Your task to perform on an android device: What's the weather going to be this weekend? Image 0: 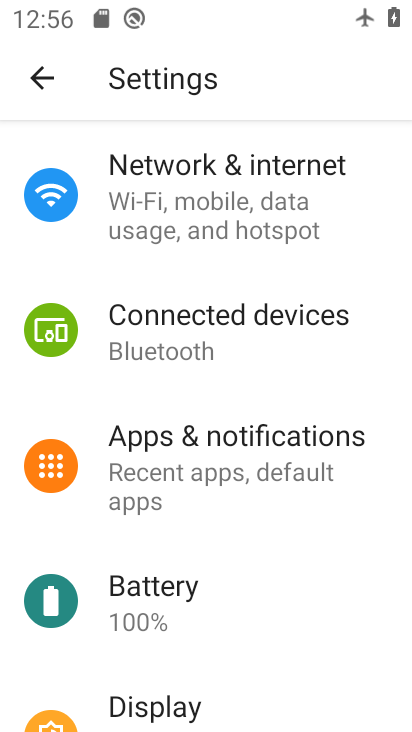
Step 0: press home button
Your task to perform on an android device: What's the weather going to be this weekend? Image 1: 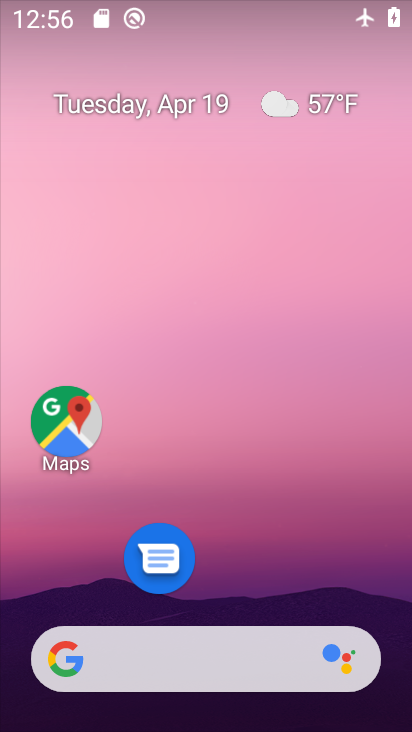
Step 1: drag from (270, 579) to (265, 133)
Your task to perform on an android device: What's the weather going to be this weekend? Image 2: 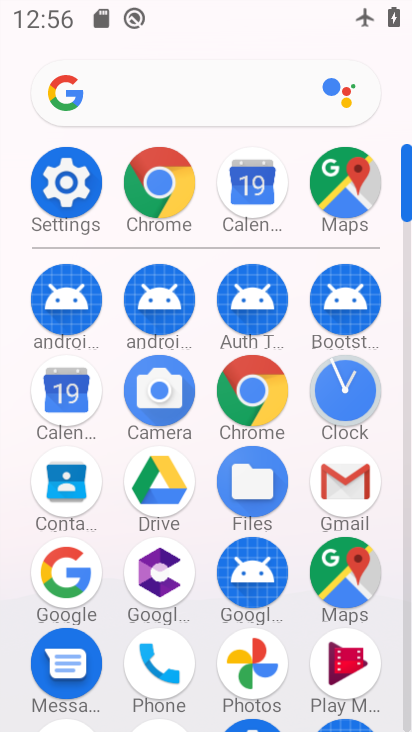
Step 2: click (175, 191)
Your task to perform on an android device: What's the weather going to be this weekend? Image 3: 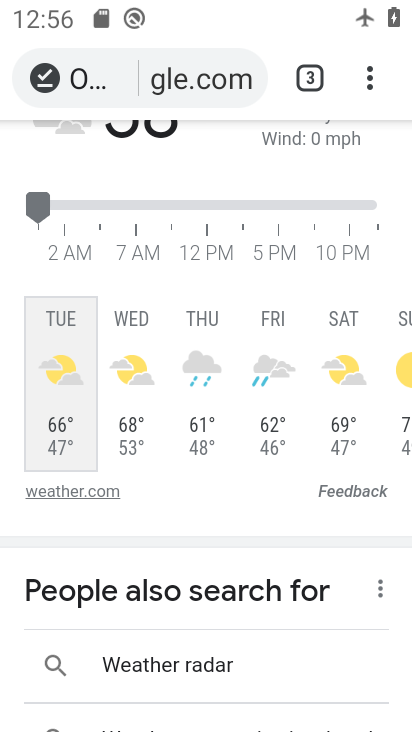
Step 3: click (315, 83)
Your task to perform on an android device: What's the weather going to be this weekend? Image 4: 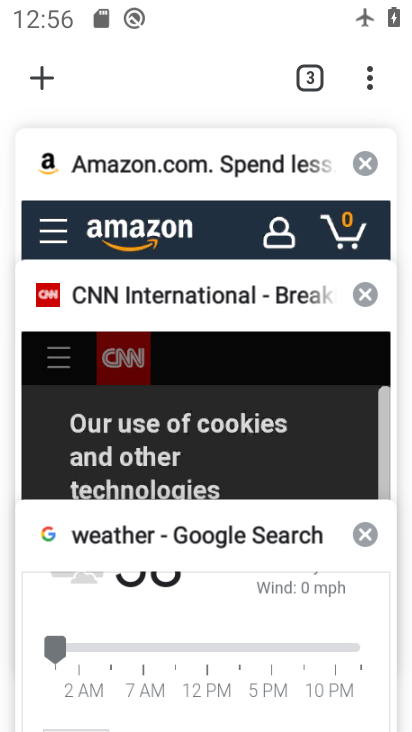
Step 4: click (42, 67)
Your task to perform on an android device: What's the weather going to be this weekend? Image 5: 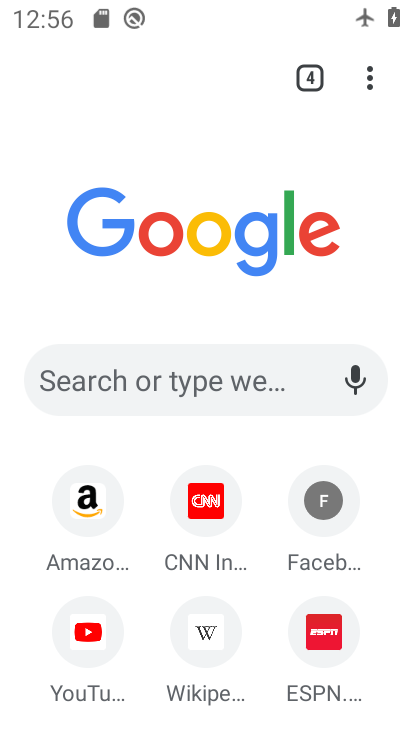
Step 5: click (117, 374)
Your task to perform on an android device: What's the weather going to be this weekend? Image 6: 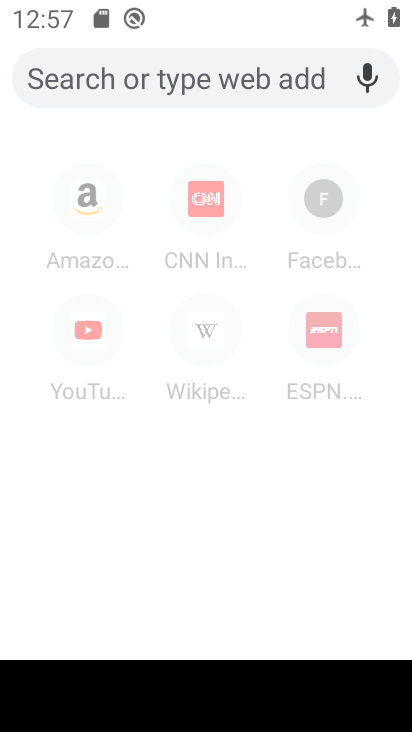
Step 6: type "what the weather going to be this weekend"
Your task to perform on an android device: What's the weather going to be this weekend? Image 7: 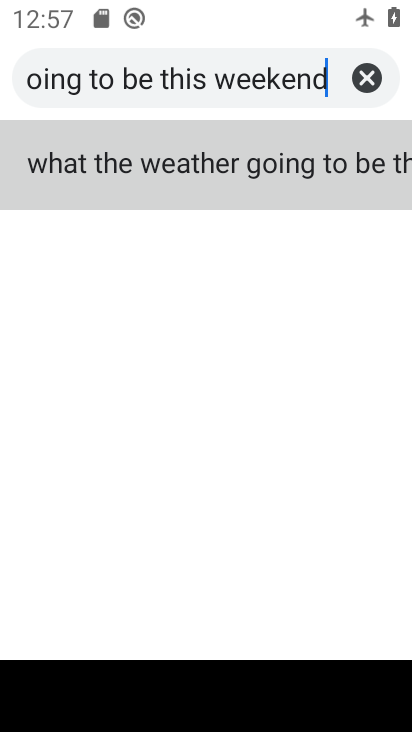
Step 7: click (185, 177)
Your task to perform on an android device: What's the weather going to be this weekend? Image 8: 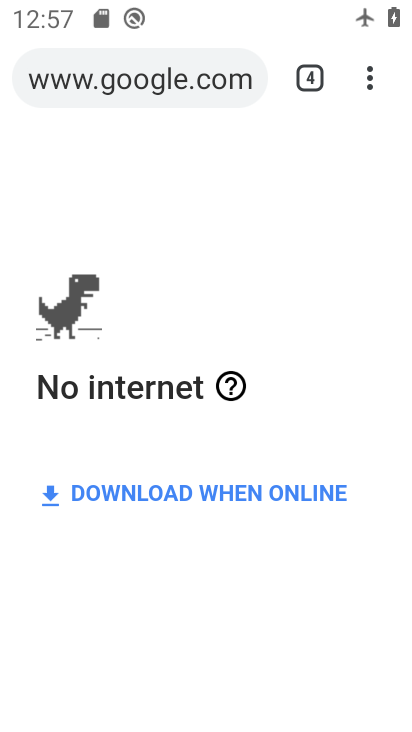
Step 8: task complete